Your task to perform on an android device: Open Wikipedia Image 0: 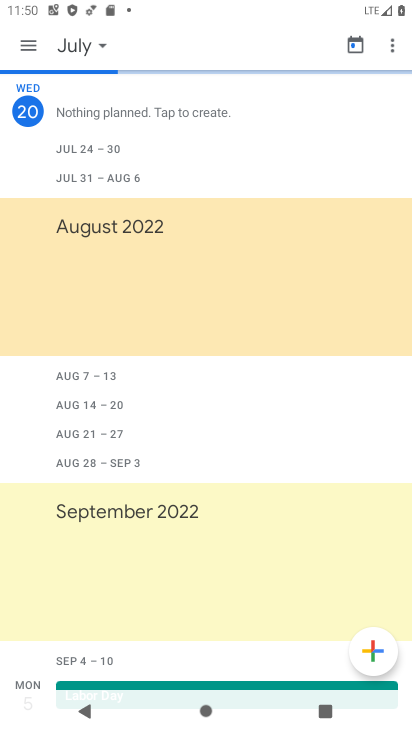
Step 0: press home button
Your task to perform on an android device: Open Wikipedia Image 1: 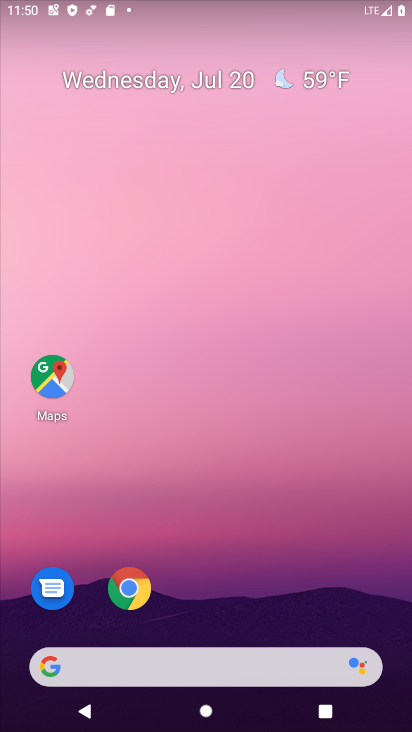
Step 1: drag from (150, 238) to (2, 441)
Your task to perform on an android device: Open Wikipedia Image 2: 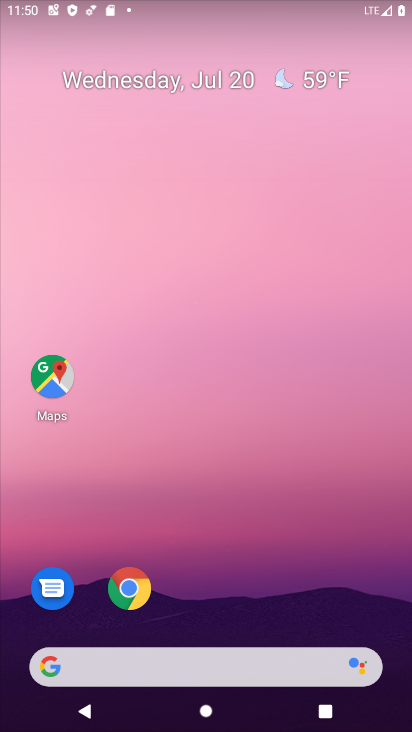
Step 2: drag from (264, 593) to (167, 1)
Your task to perform on an android device: Open Wikipedia Image 3: 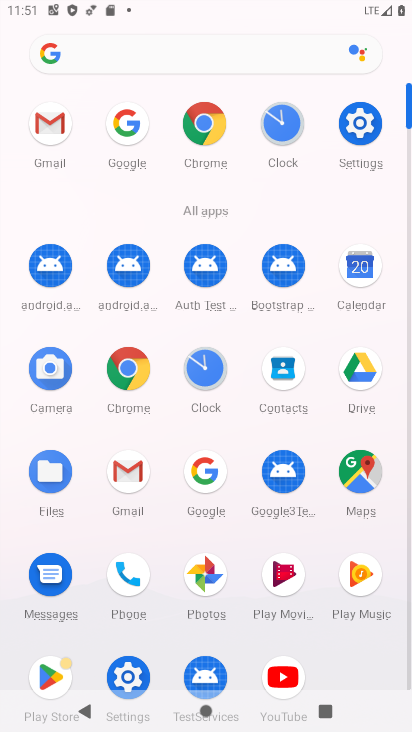
Step 3: click (189, 120)
Your task to perform on an android device: Open Wikipedia Image 4: 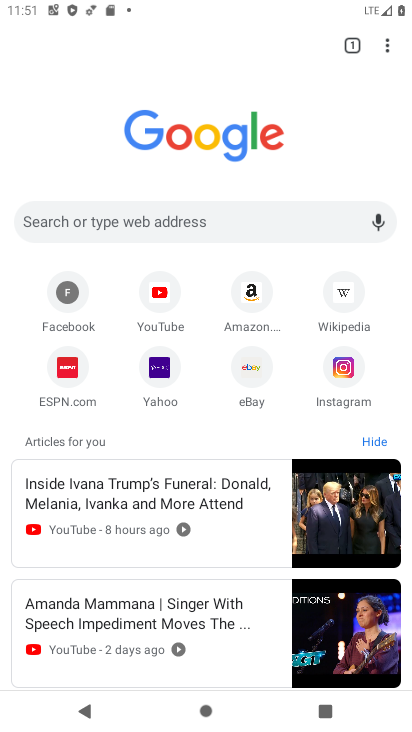
Step 4: click (349, 287)
Your task to perform on an android device: Open Wikipedia Image 5: 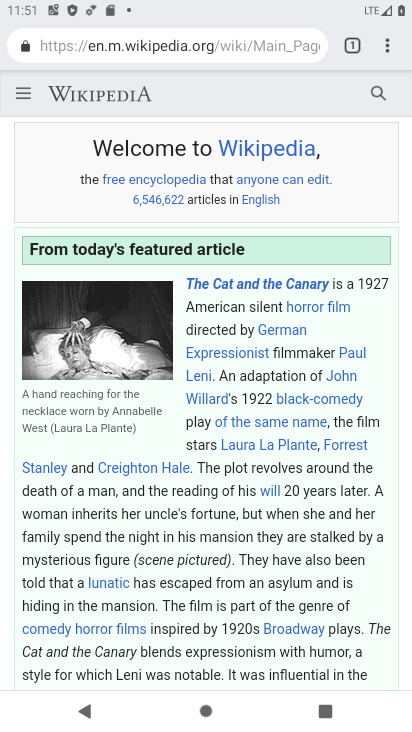
Step 5: task complete